Your task to perform on an android device: turn on improve location accuracy Image 0: 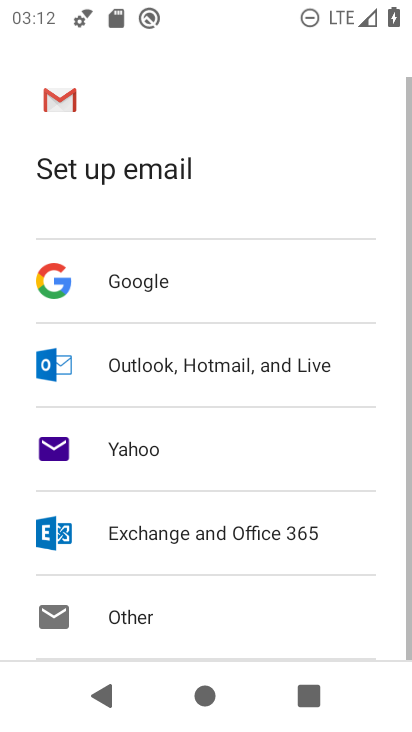
Step 0: press home button
Your task to perform on an android device: turn on improve location accuracy Image 1: 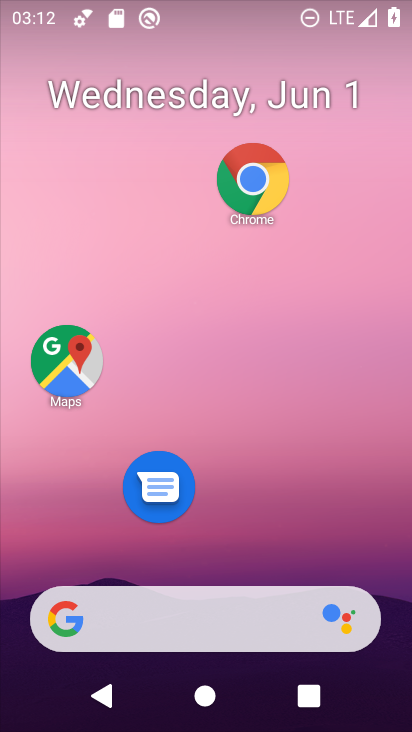
Step 1: drag from (246, 594) to (258, 322)
Your task to perform on an android device: turn on improve location accuracy Image 2: 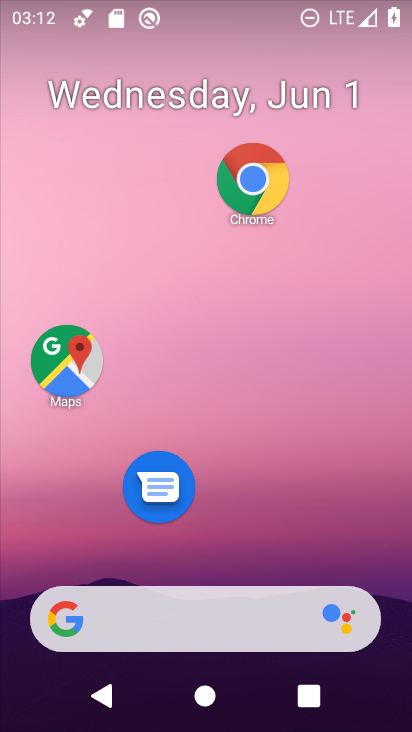
Step 2: drag from (238, 548) to (245, 141)
Your task to perform on an android device: turn on improve location accuracy Image 3: 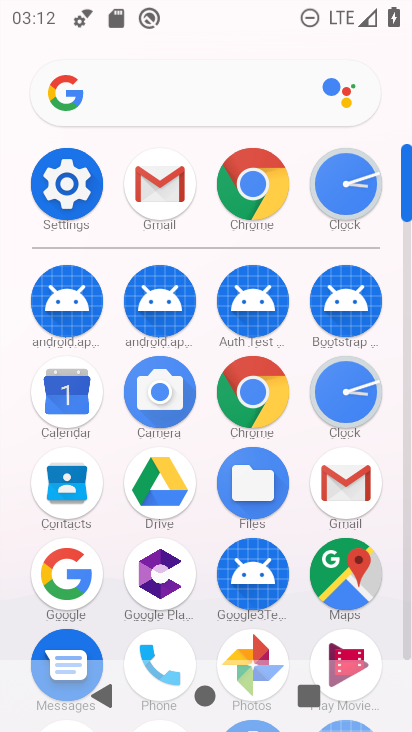
Step 3: click (92, 176)
Your task to perform on an android device: turn on improve location accuracy Image 4: 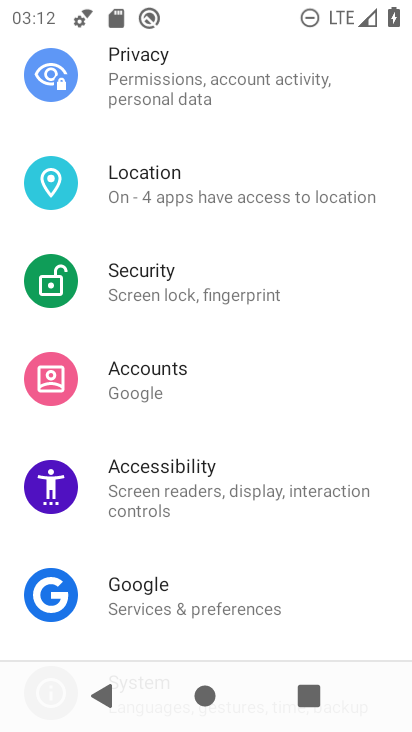
Step 4: click (223, 182)
Your task to perform on an android device: turn on improve location accuracy Image 5: 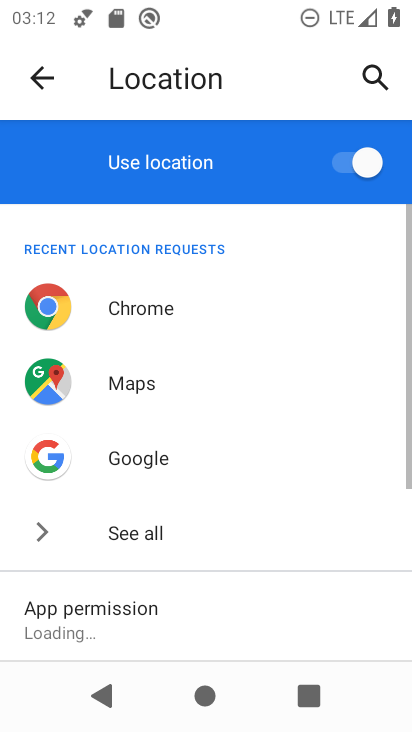
Step 5: drag from (239, 561) to (228, 291)
Your task to perform on an android device: turn on improve location accuracy Image 6: 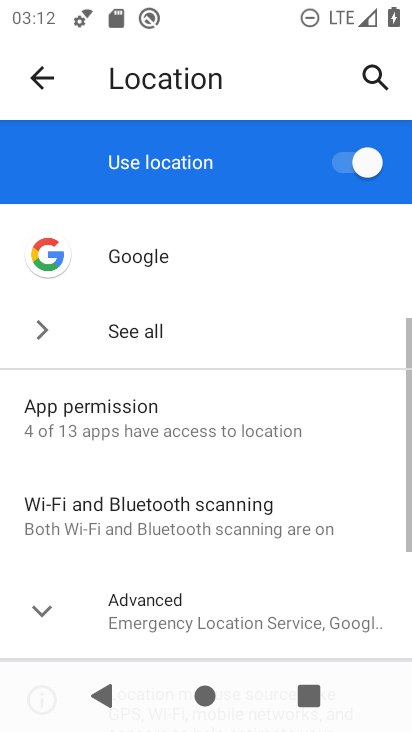
Step 6: click (203, 614)
Your task to perform on an android device: turn on improve location accuracy Image 7: 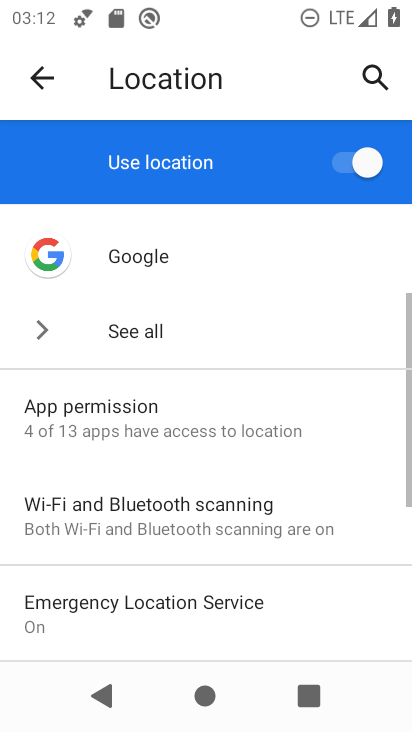
Step 7: task complete